Your task to perform on an android device: Show me popular games on the Play Store Image 0: 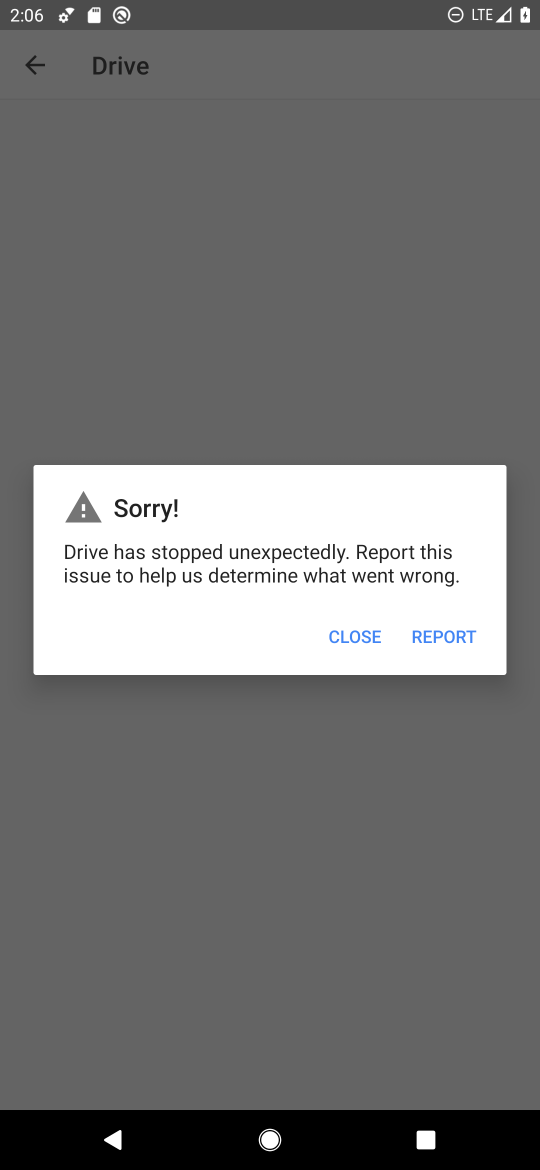
Step 0: press home button
Your task to perform on an android device: Show me popular games on the Play Store Image 1: 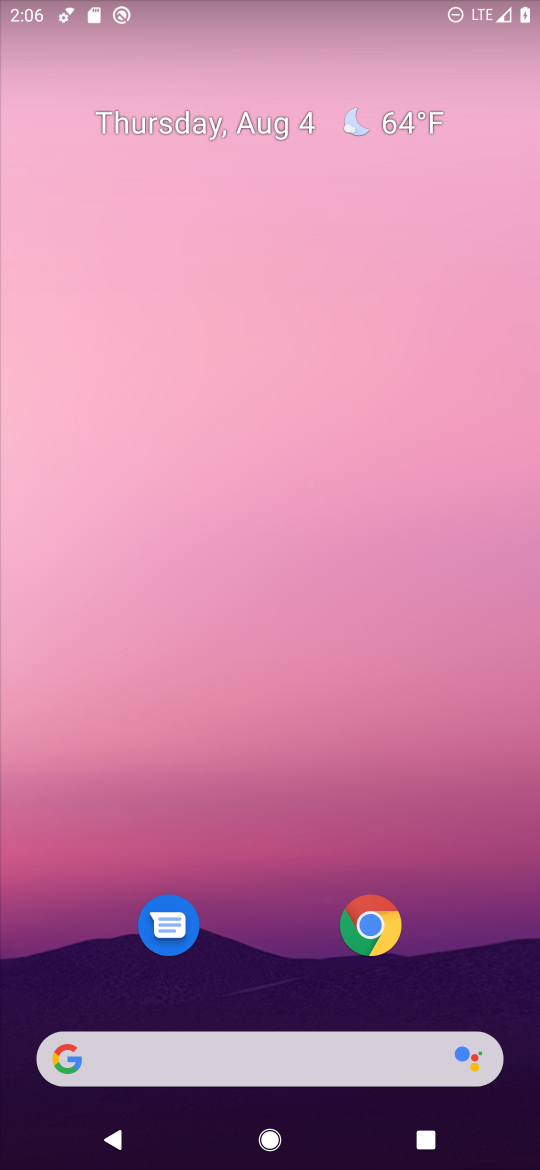
Step 1: drag from (256, 970) to (266, 538)
Your task to perform on an android device: Show me popular games on the Play Store Image 2: 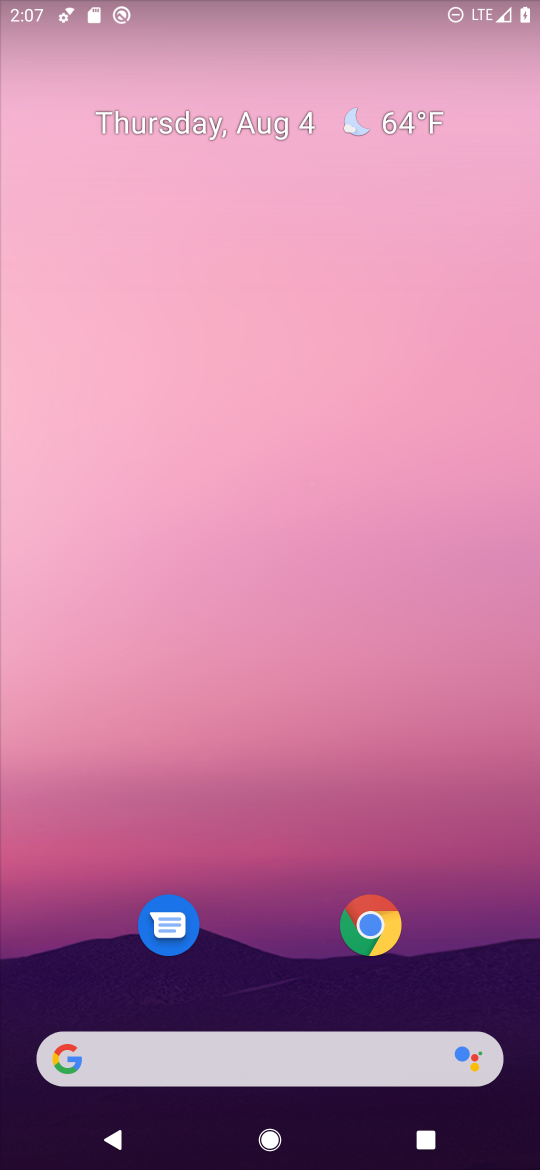
Step 2: drag from (247, 958) to (351, 220)
Your task to perform on an android device: Show me popular games on the Play Store Image 3: 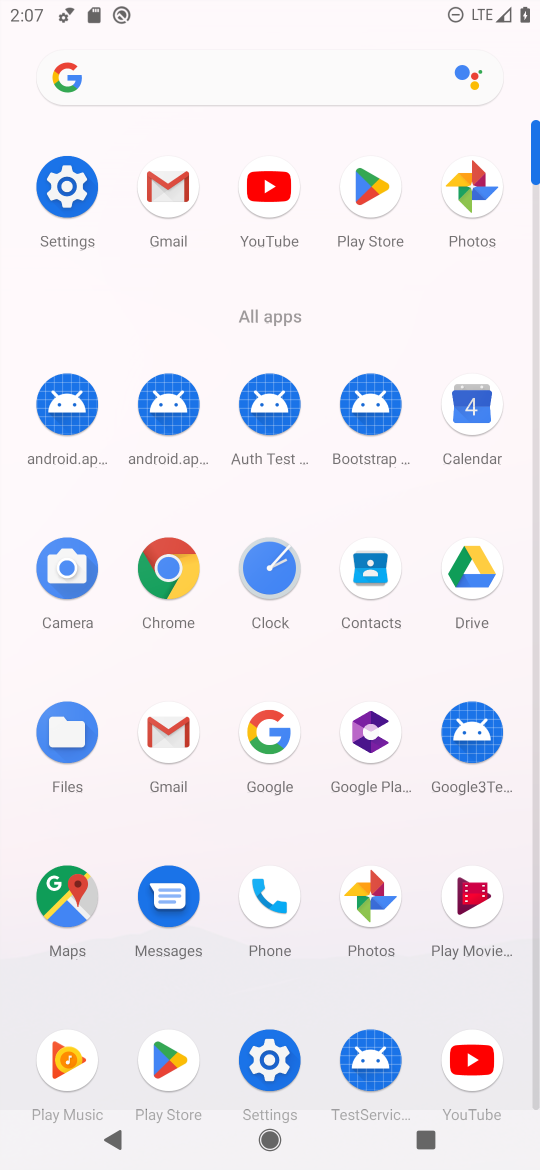
Step 3: click (170, 1066)
Your task to perform on an android device: Show me popular games on the Play Store Image 4: 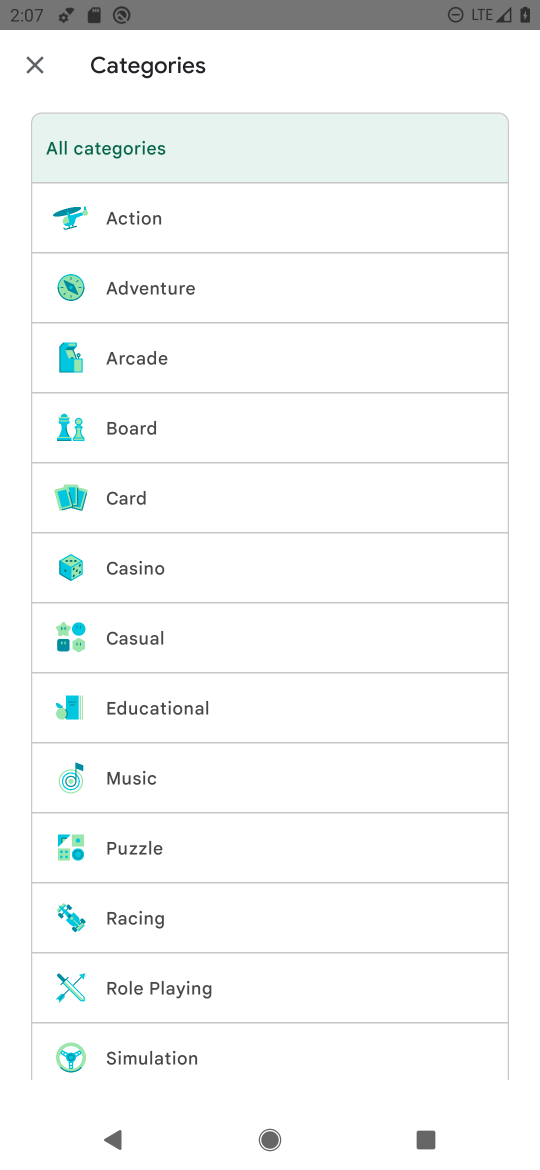
Step 4: click (115, 1137)
Your task to perform on an android device: Show me popular games on the Play Store Image 5: 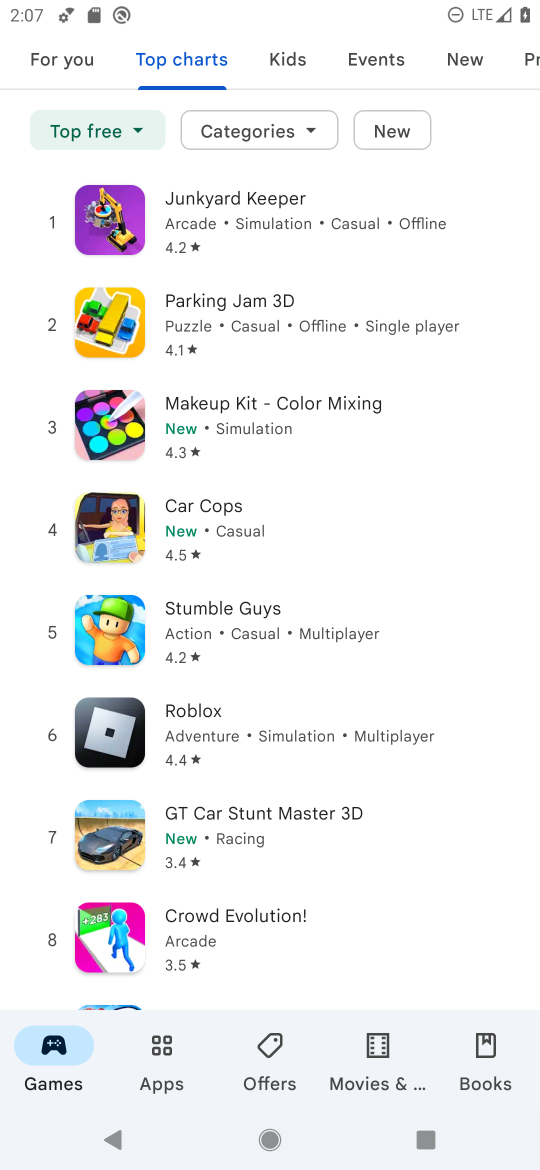
Step 5: task complete